Your task to perform on an android device: See recent photos Image 0: 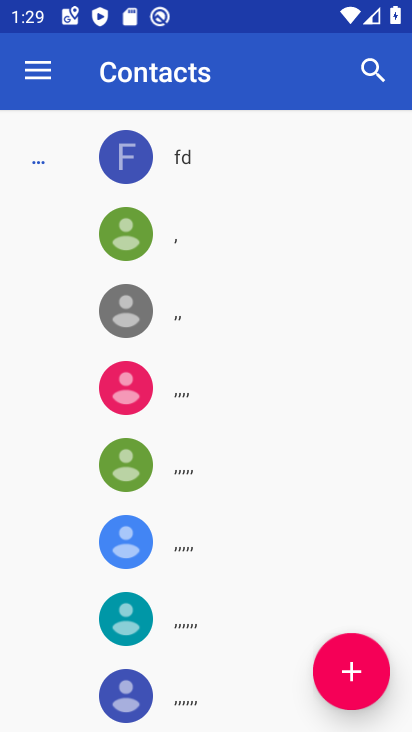
Step 0: press home button
Your task to perform on an android device: See recent photos Image 1: 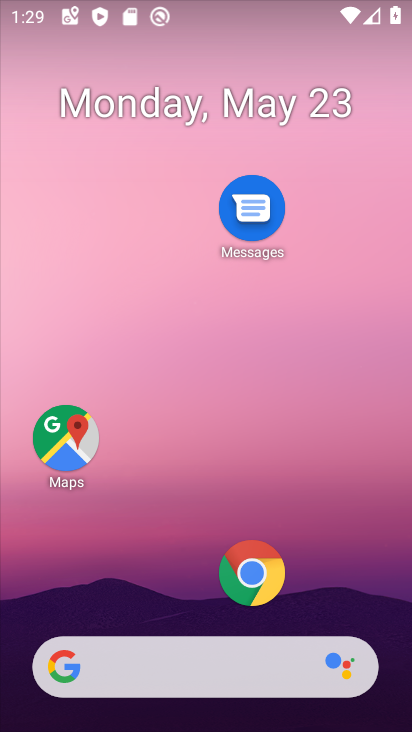
Step 1: drag from (193, 484) to (224, 75)
Your task to perform on an android device: See recent photos Image 2: 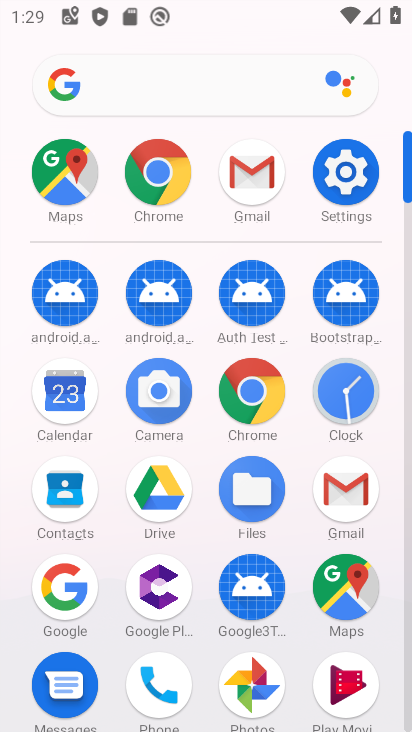
Step 2: click (240, 680)
Your task to perform on an android device: See recent photos Image 3: 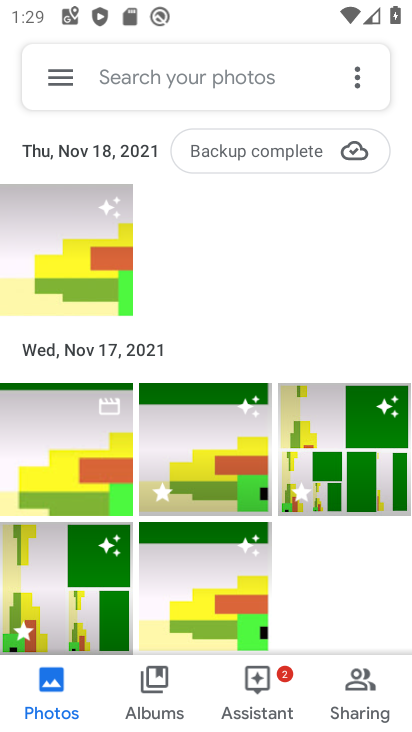
Step 3: click (74, 77)
Your task to perform on an android device: See recent photos Image 4: 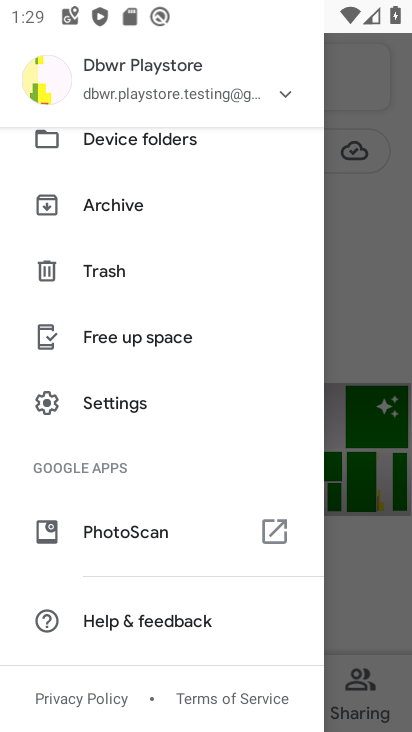
Step 4: drag from (228, 350) to (269, 191)
Your task to perform on an android device: See recent photos Image 5: 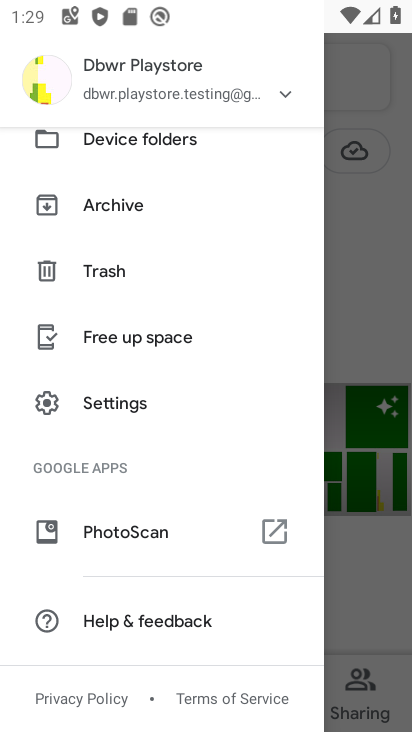
Step 5: drag from (244, 195) to (227, 473)
Your task to perform on an android device: See recent photos Image 6: 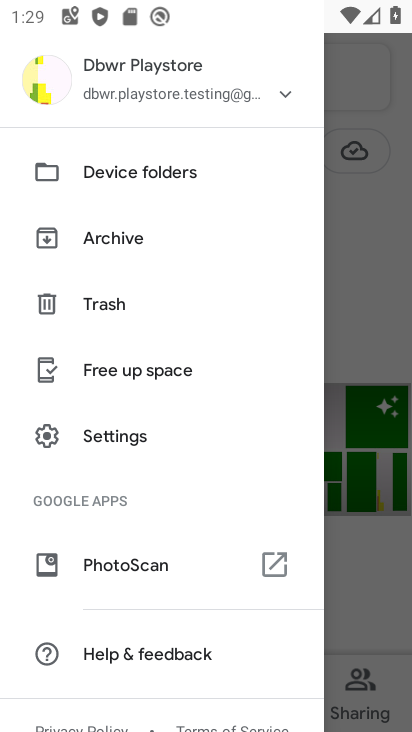
Step 6: click (404, 263)
Your task to perform on an android device: See recent photos Image 7: 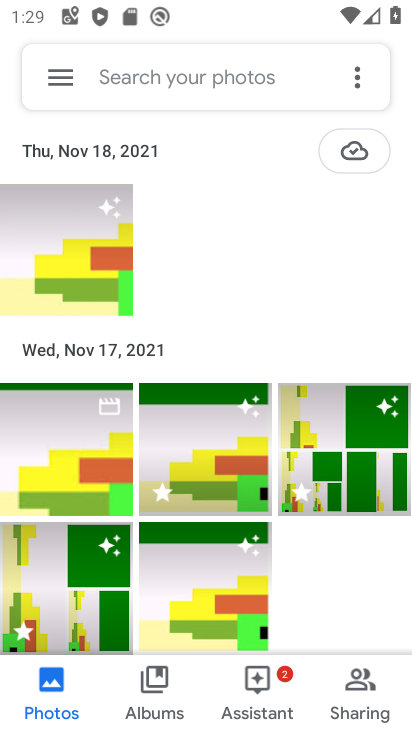
Step 7: click (111, 264)
Your task to perform on an android device: See recent photos Image 8: 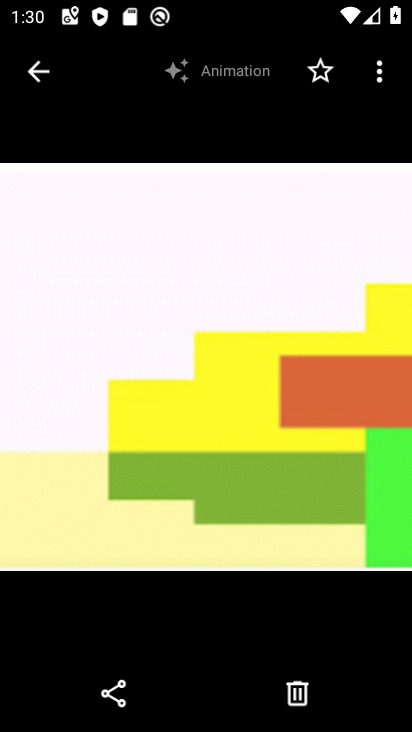
Step 8: task complete